Your task to perform on an android device: toggle show notifications on the lock screen Image 0: 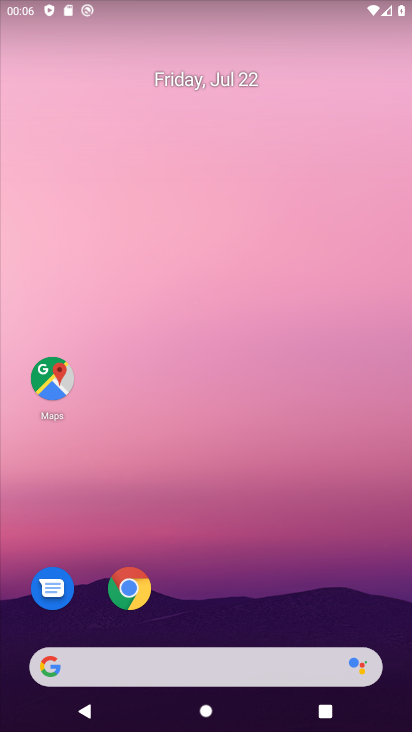
Step 0: drag from (252, 602) to (307, 30)
Your task to perform on an android device: toggle show notifications on the lock screen Image 1: 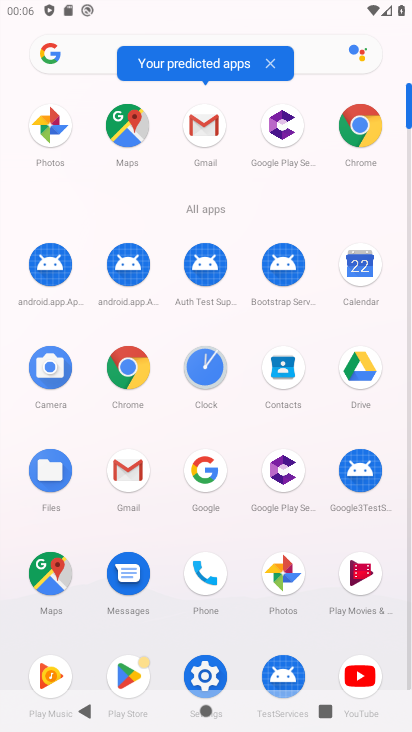
Step 1: click (207, 666)
Your task to perform on an android device: toggle show notifications on the lock screen Image 2: 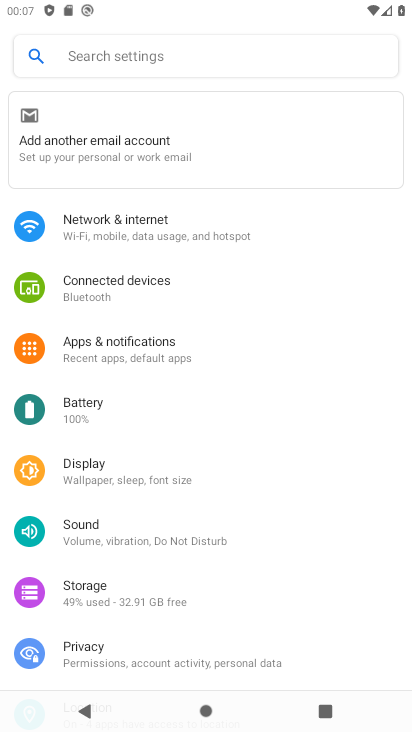
Step 2: click (136, 347)
Your task to perform on an android device: toggle show notifications on the lock screen Image 3: 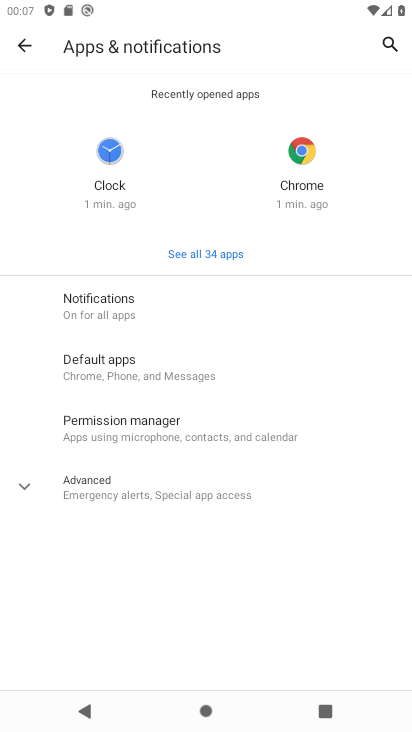
Step 3: click (110, 306)
Your task to perform on an android device: toggle show notifications on the lock screen Image 4: 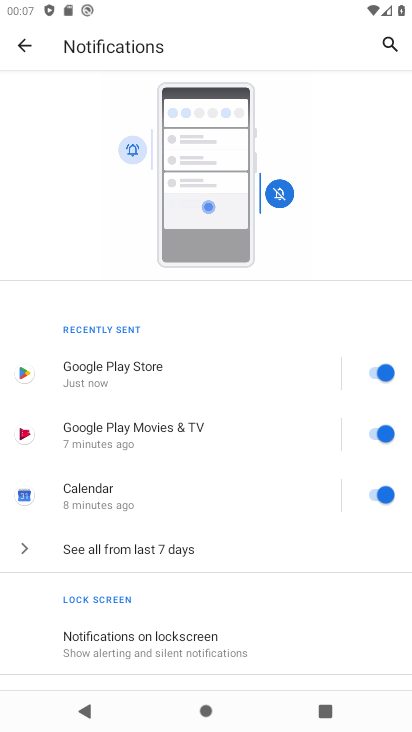
Step 4: click (173, 637)
Your task to perform on an android device: toggle show notifications on the lock screen Image 5: 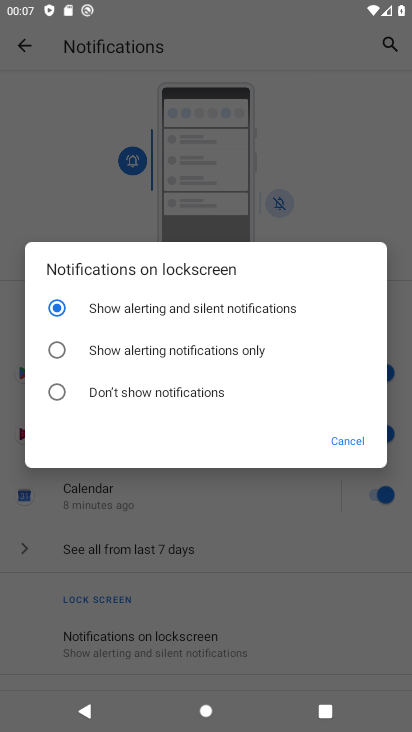
Step 5: click (64, 304)
Your task to perform on an android device: toggle show notifications on the lock screen Image 6: 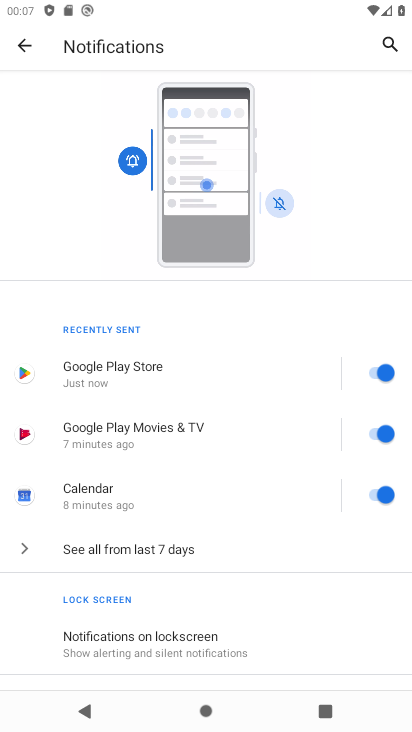
Step 6: task complete